Your task to perform on an android device: Open internet settings Image 0: 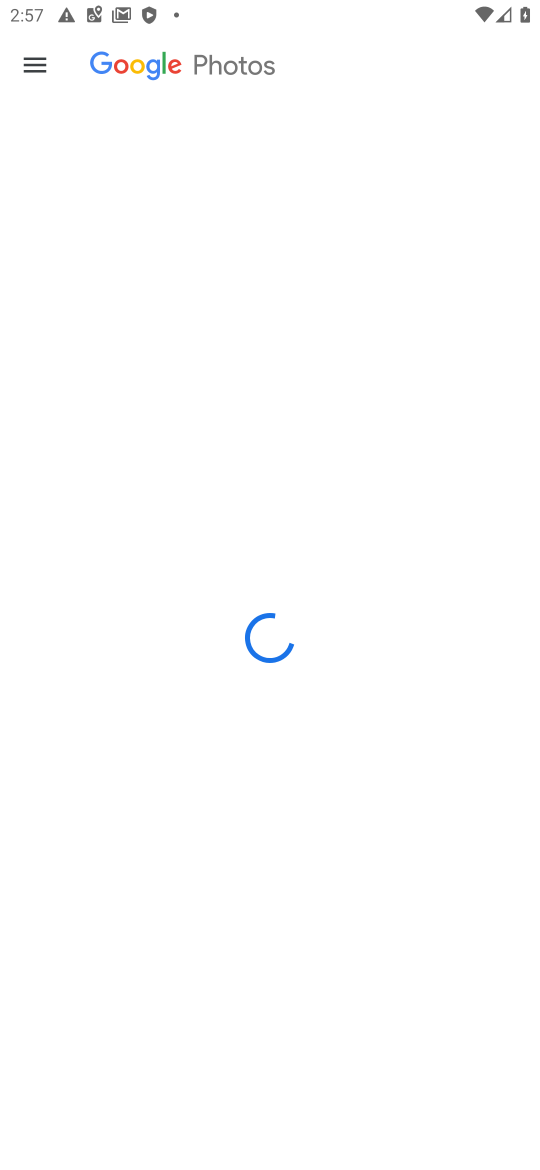
Step 0: press back button
Your task to perform on an android device: Open internet settings Image 1: 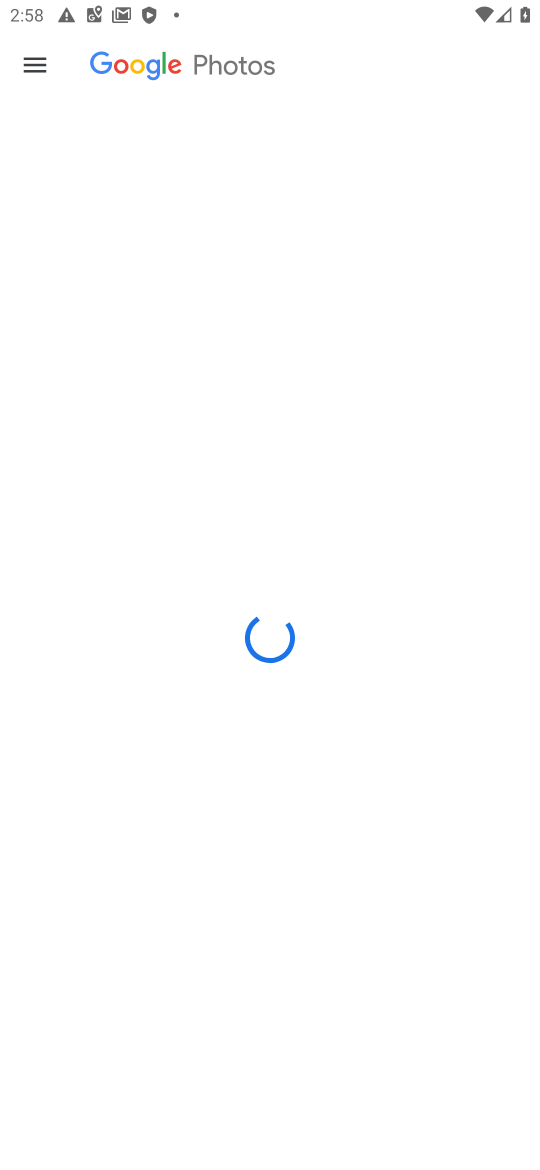
Step 1: press home button
Your task to perform on an android device: Open internet settings Image 2: 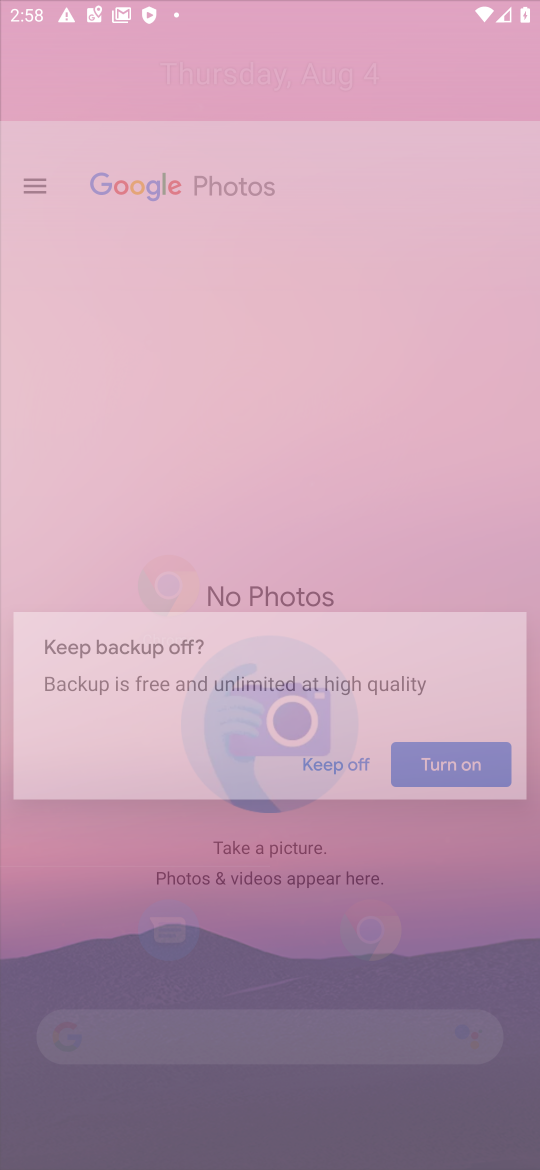
Step 2: press back button
Your task to perform on an android device: Open internet settings Image 3: 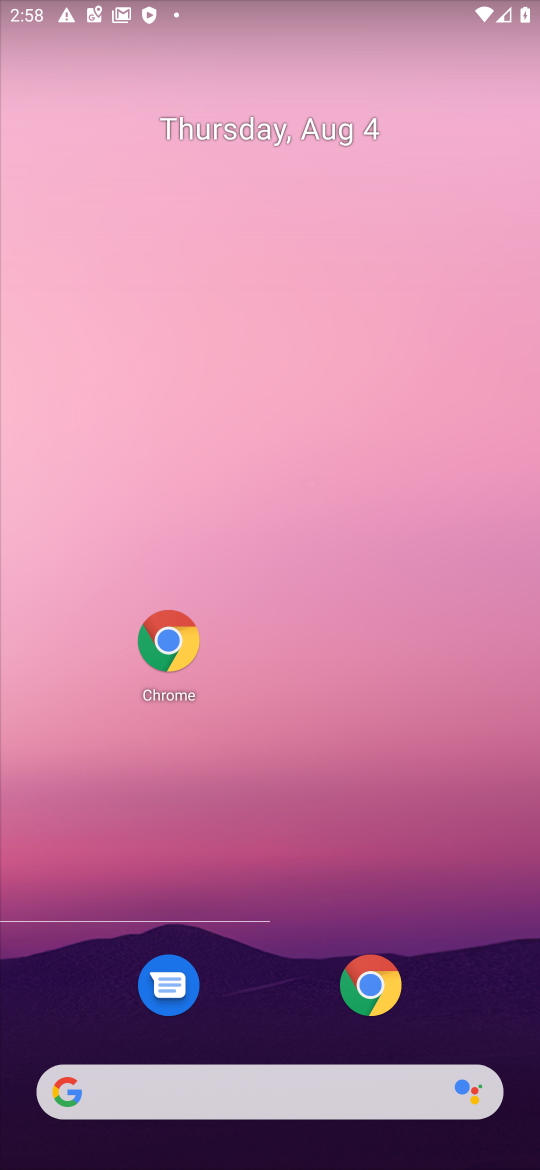
Step 3: click (334, 744)
Your task to perform on an android device: Open internet settings Image 4: 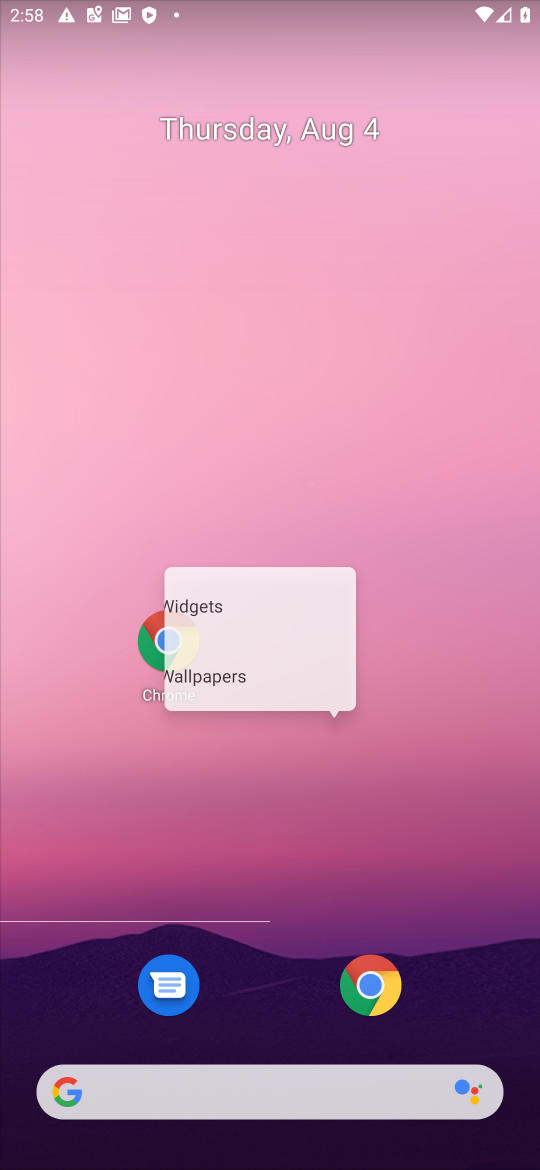
Step 4: drag from (271, 974) to (110, 393)
Your task to perform on an android device: Open internet settings Image 5: 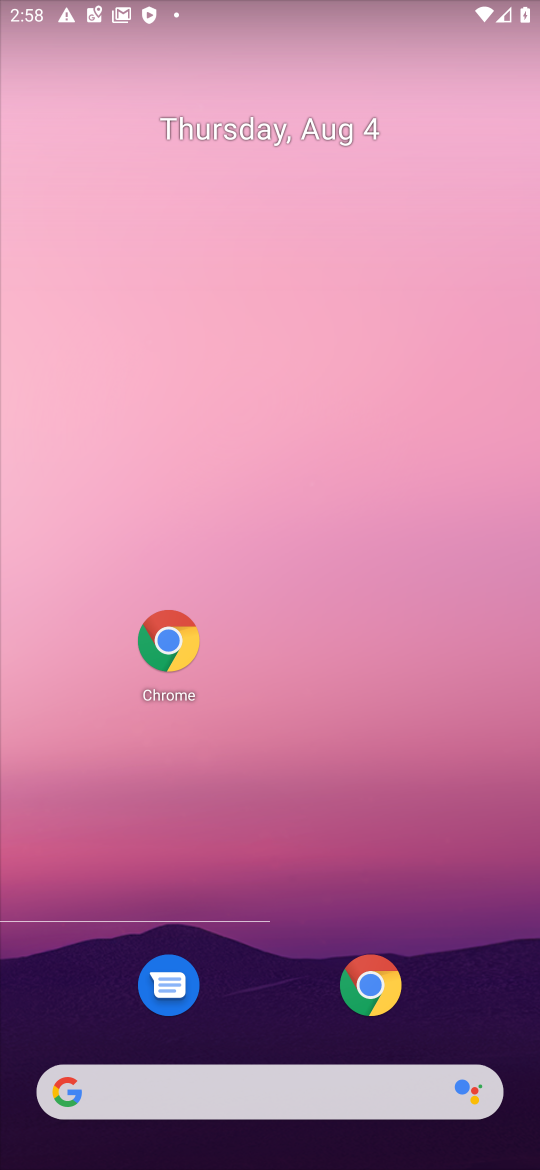
Step 5: drag from (249, 672) to (229, 298)
Your task to perform on an android device: Open internet settings Image 6: 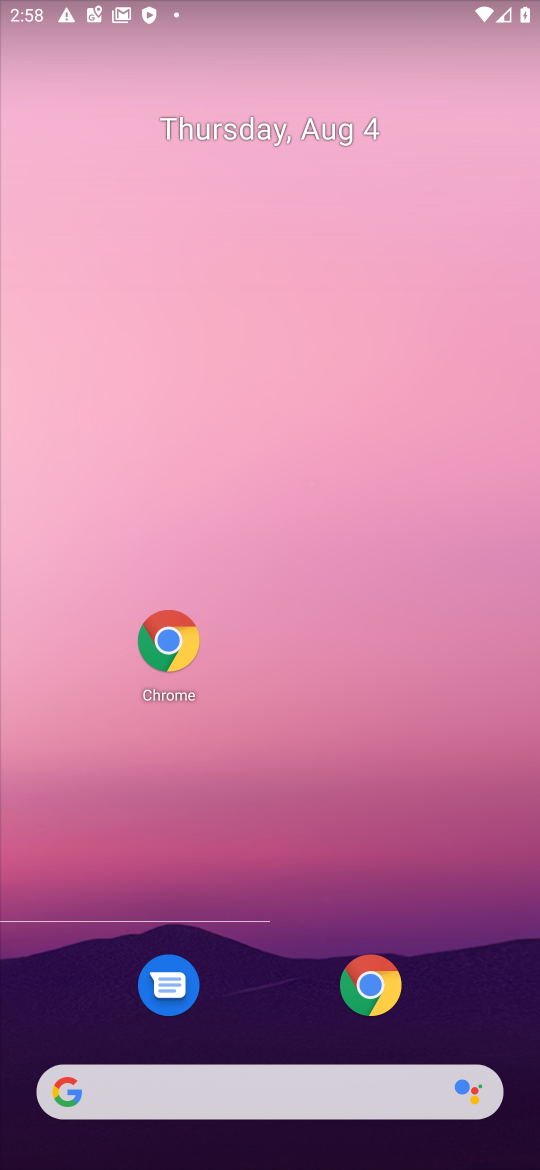
Step 6: drag from (314, 1034) to (220, 634)
Your task to perform on an android device: Open internet settings Image 7: 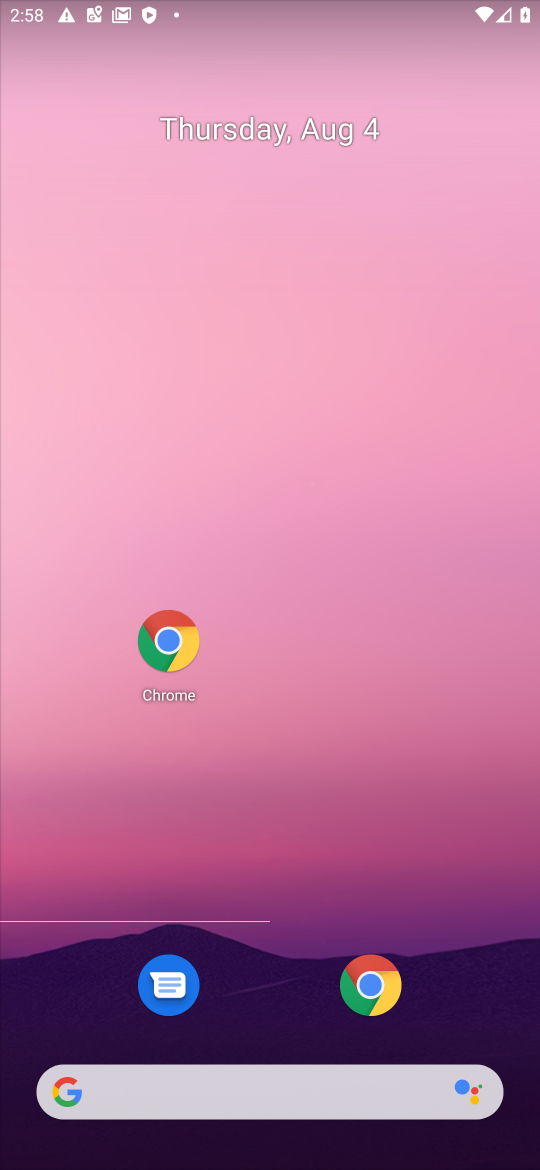
Step 7: drag from (321, 882) to (257, 459)
Your task to perform on an android device: Open internet settings Image 8: 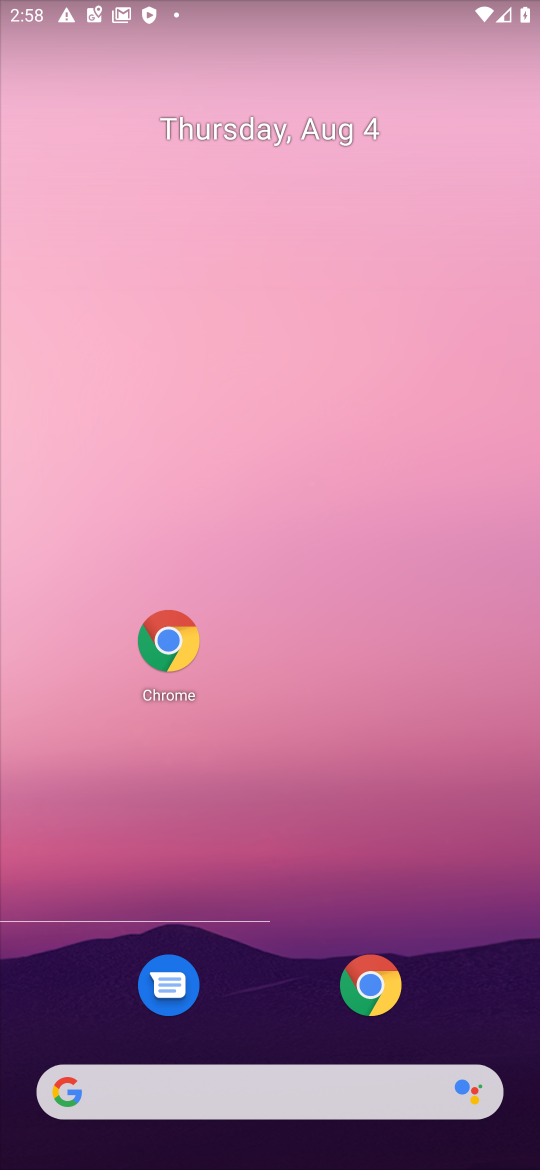
Step 8: drag from (264, 884) to (193, 489)
Your task to perform on an android device: Open internet settings Image 9: 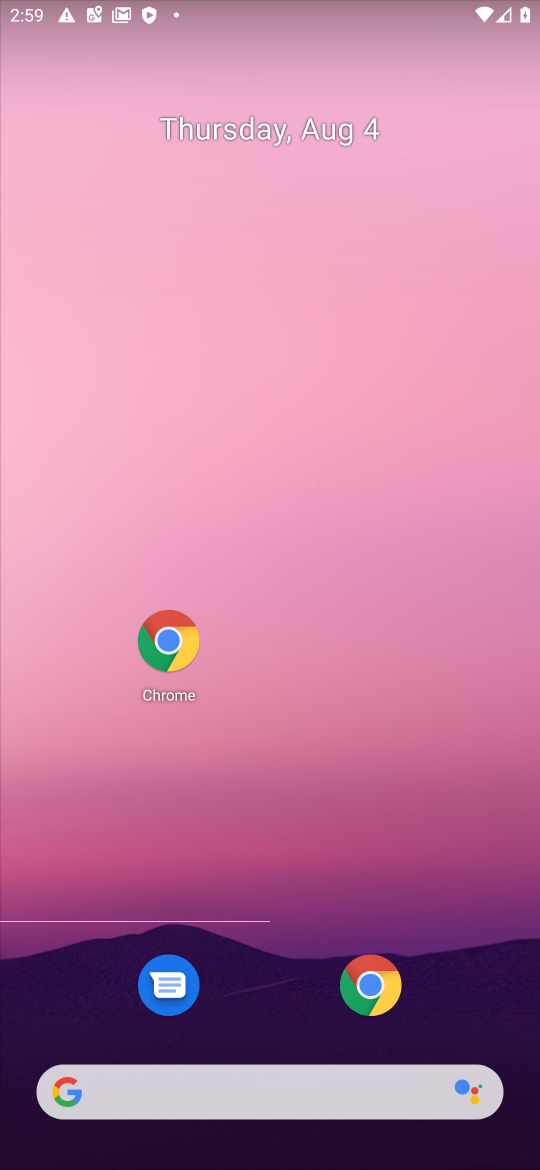
Step 9: click (308, 171)
Your task to perform on an android device: Open internet settings Image 10: 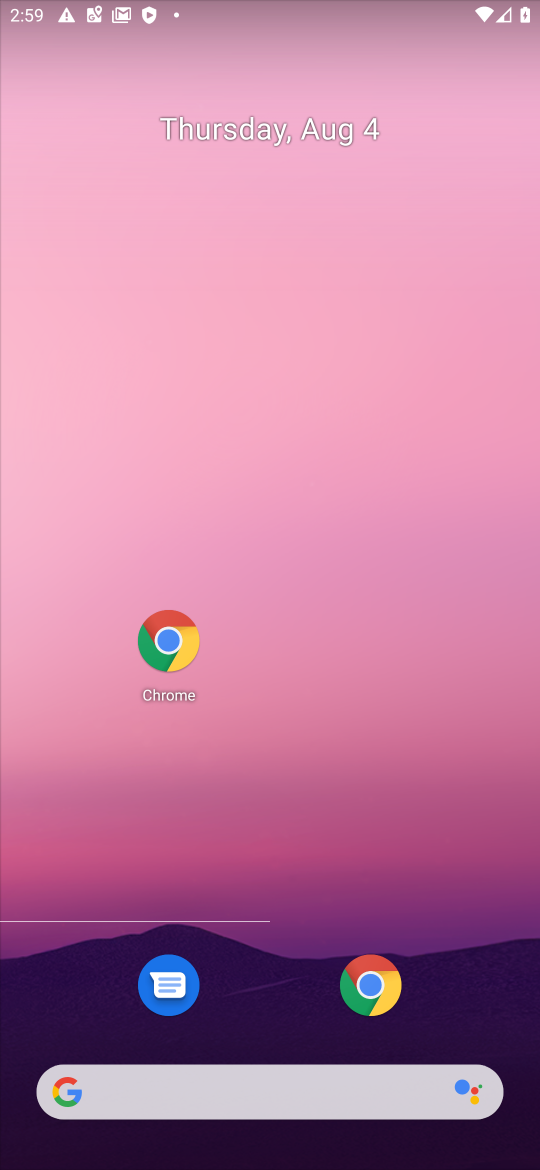
Step 10: drag from (297, 911) to (126, 239)
Your task to perform on an android device: Open internet settings Image 11: 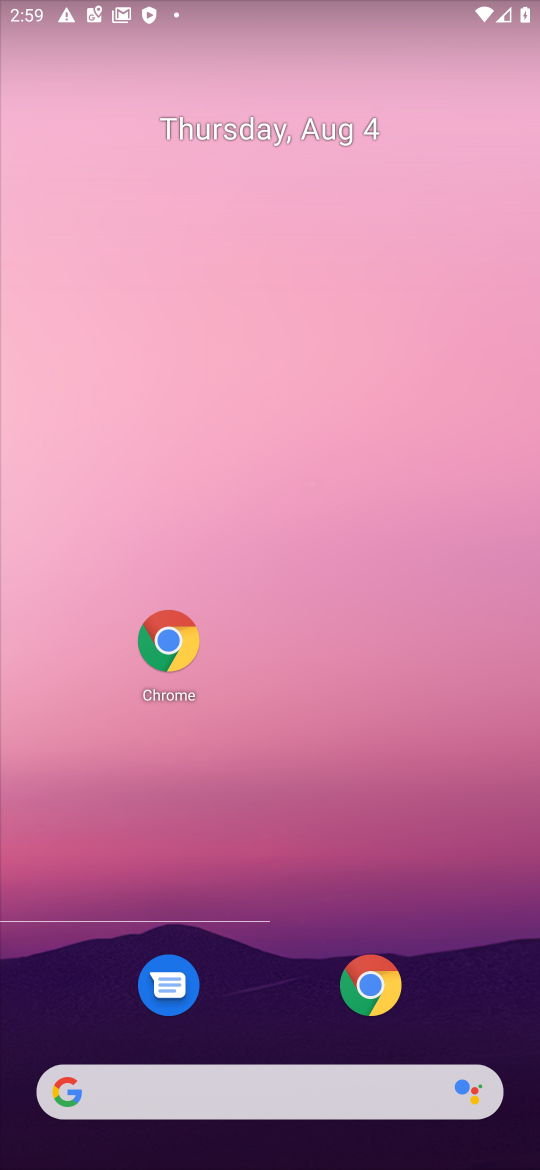
Step 11: drag from (249, 427) to (205, 213)
Your task to perform on an android device: Open internet settings Image 12: 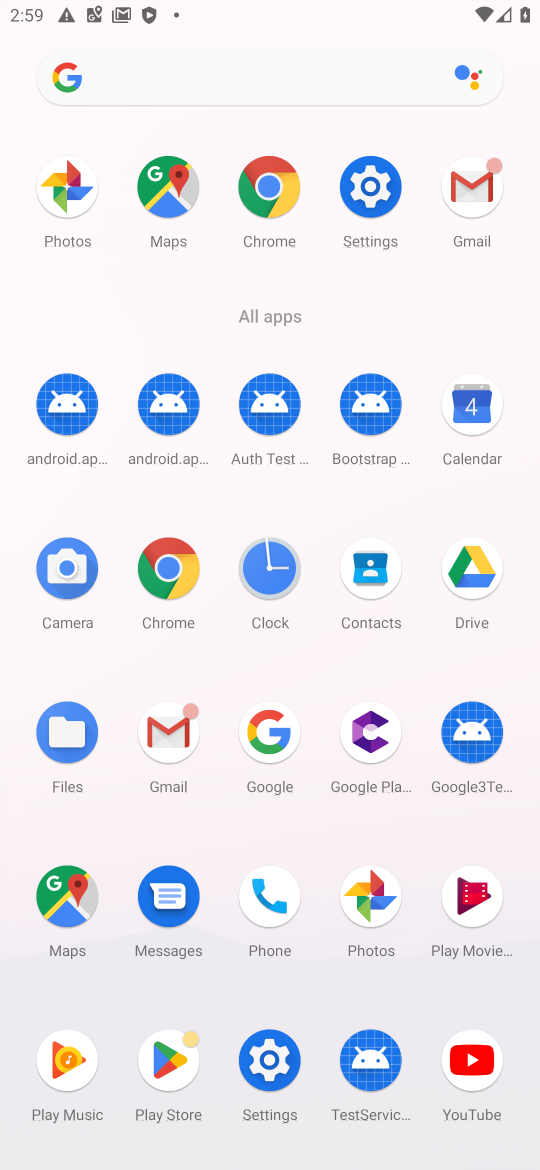
Step 12: click (368, 182)
Your task to perform on an android device: Open internet settings Image 13: 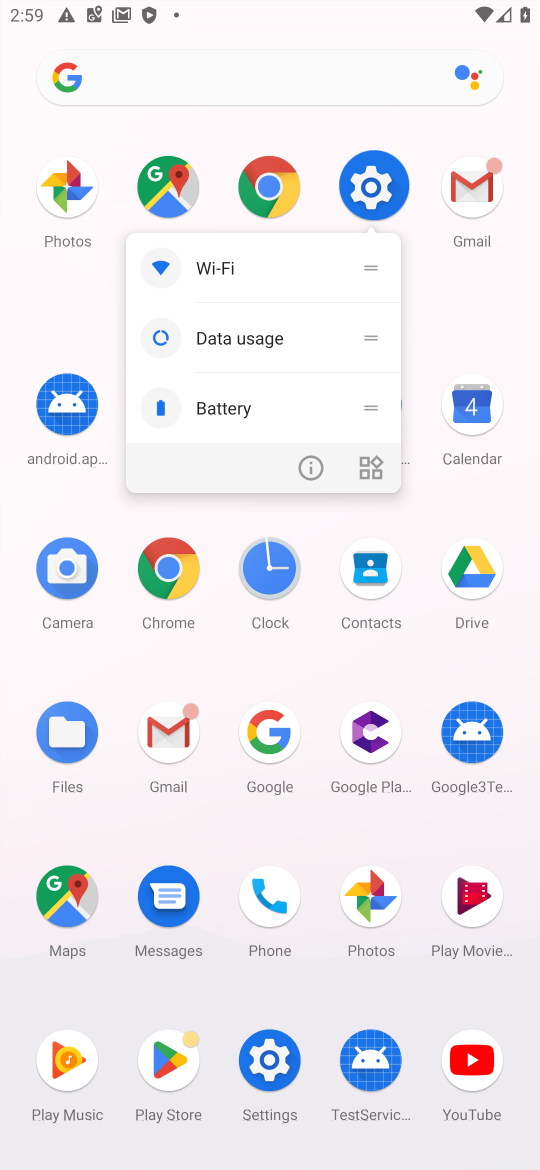
Step 13: click (378, 193)
Your task to perform on an android device: Open internet settings Image 14: 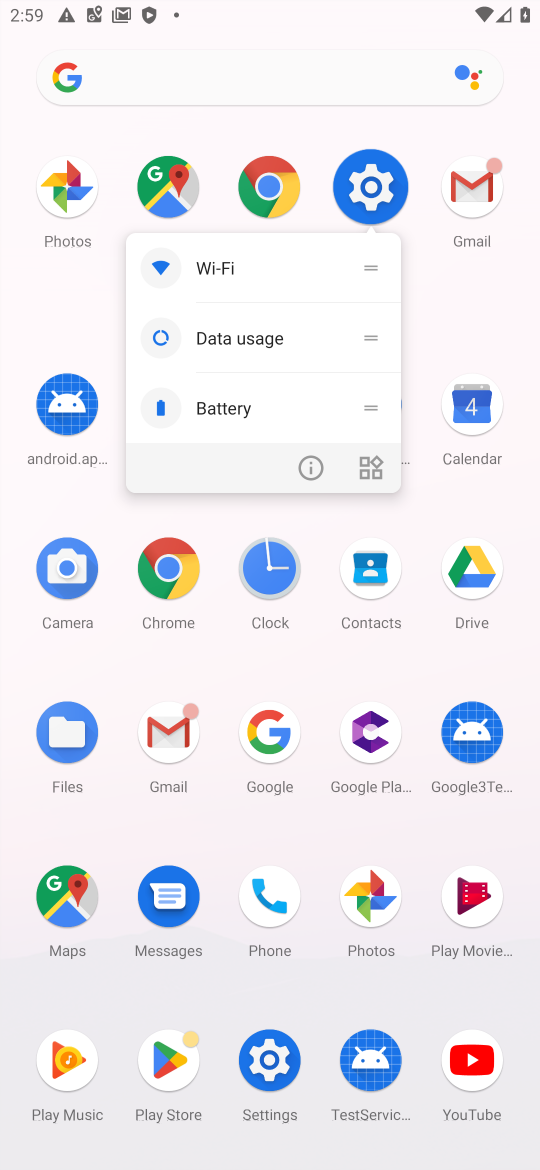
Step 14: click (367, 189)
Your task to perform on an android device: Open internet settings Image 15: 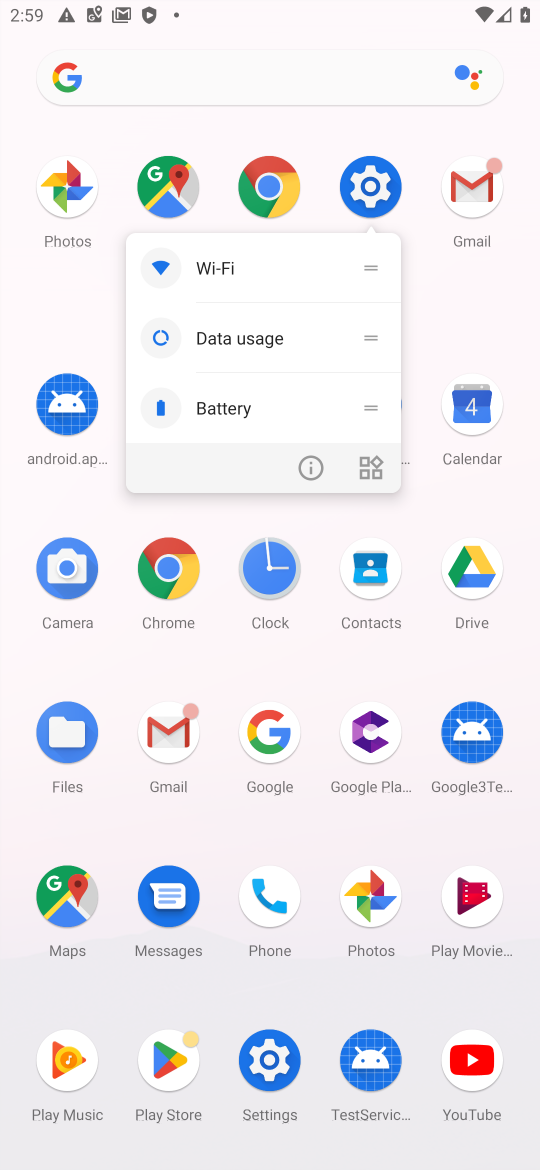
Step 15: click (372, 185)
Your task to perform on an android device: Open internet settings Image 16: 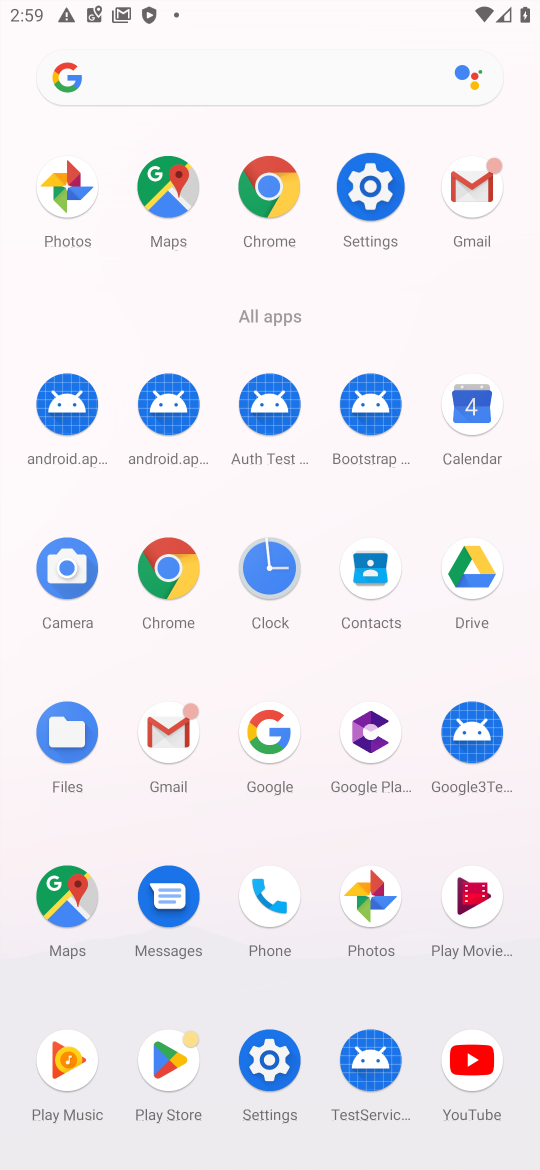
Step 16: click (373, 186)
Your task to perform on an android device: Open internet settings Image 17: 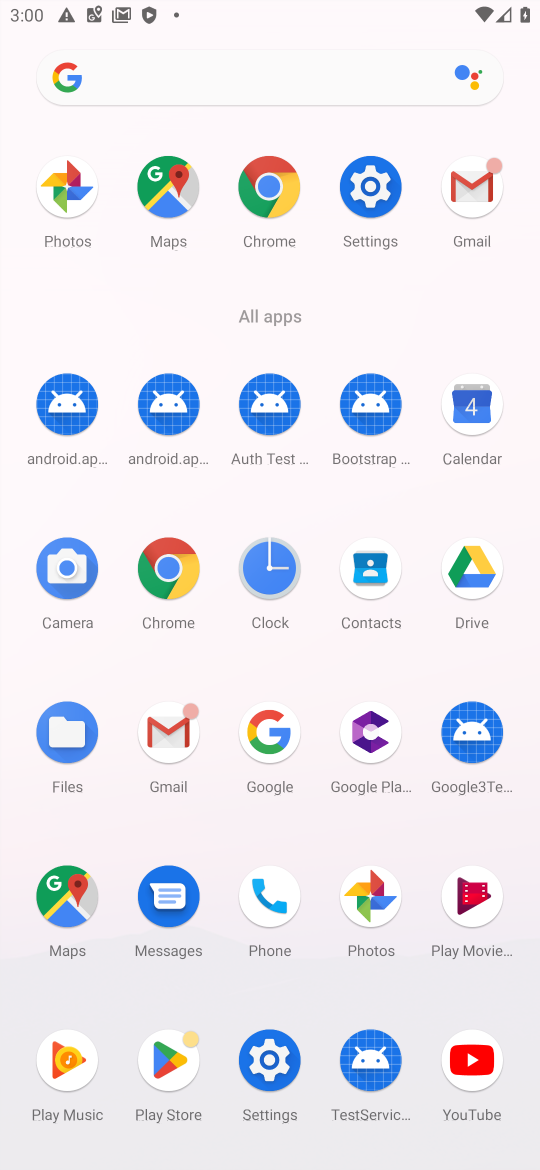
Step 17: click (263, 1083)
Your task to perform on an android device: Open internet settings Image 18: 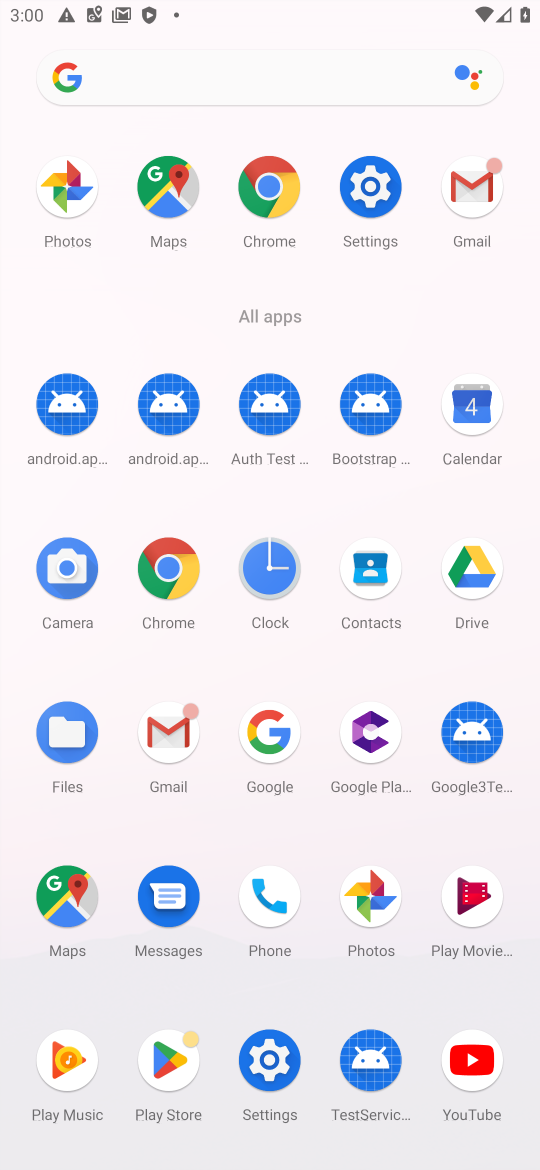
Step 18: click (277, 1065)
Your task to perform on an android device: Open internet settings Image 19: 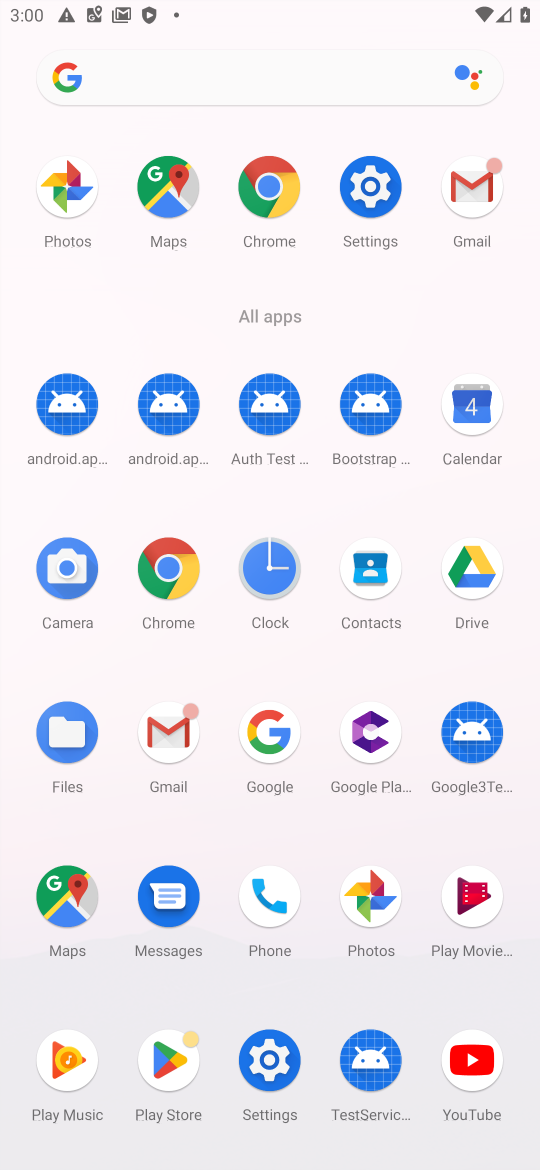
Step 19: click (272, 1053)
Your task to perform on an android device: Open internet settings Image 20: 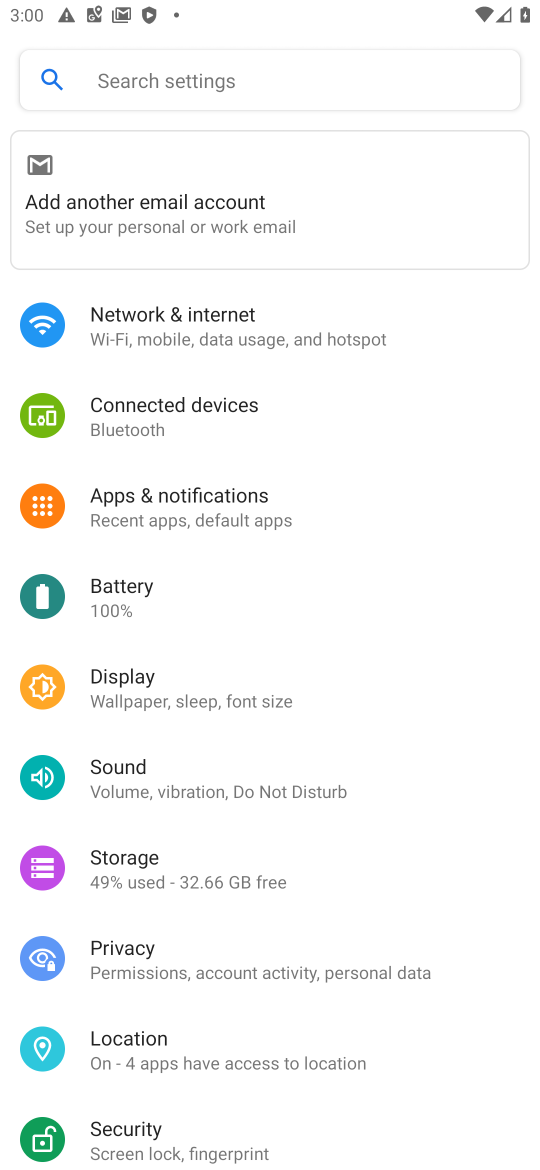
Step 20: click (209, 311)
Your task to perform on an android device: Open internet settings Image 21: 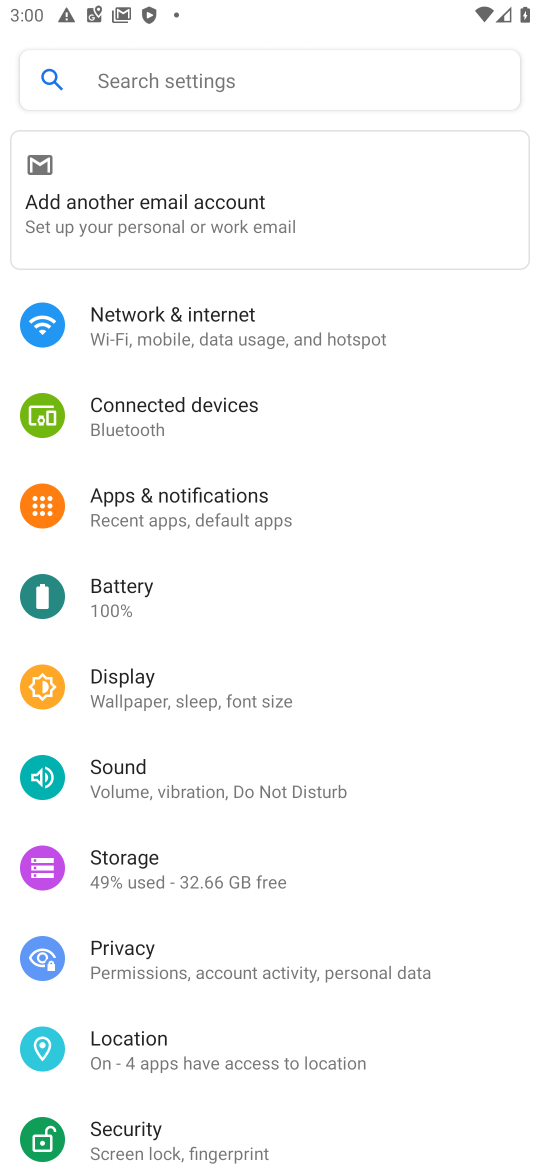
Step 21: click (230, 348)
Your task to perform on an android device: Open internet settings Image 22: 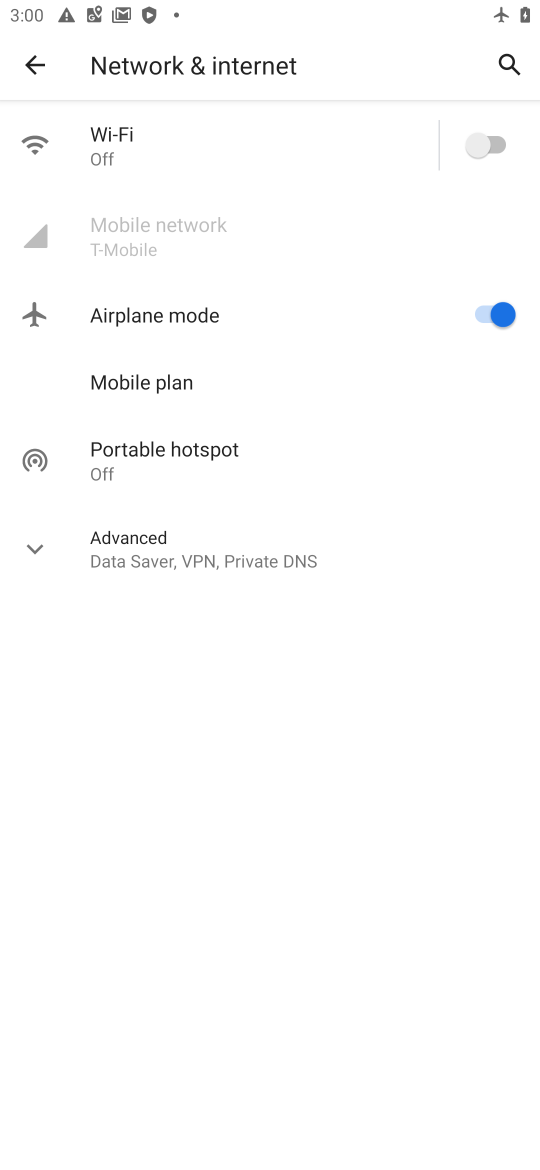
Step 22: click (481, 135)
Your task to perform on an android device: Open internet settings Image 23: 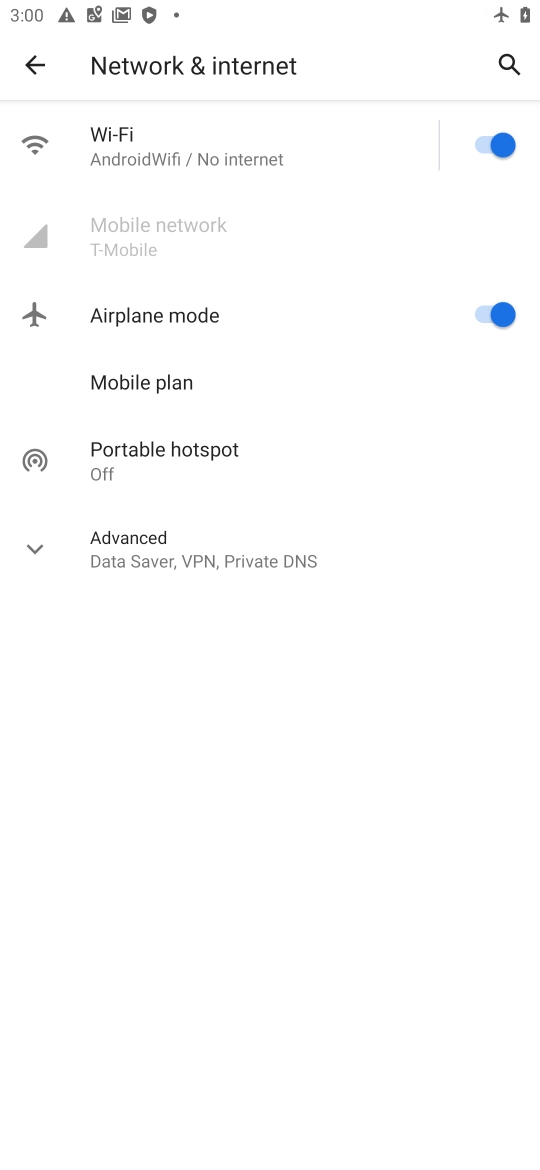
Step 23: task complete